Your task to perform on an android device: Open Google Chrome and open the bookmarks view Image 0: 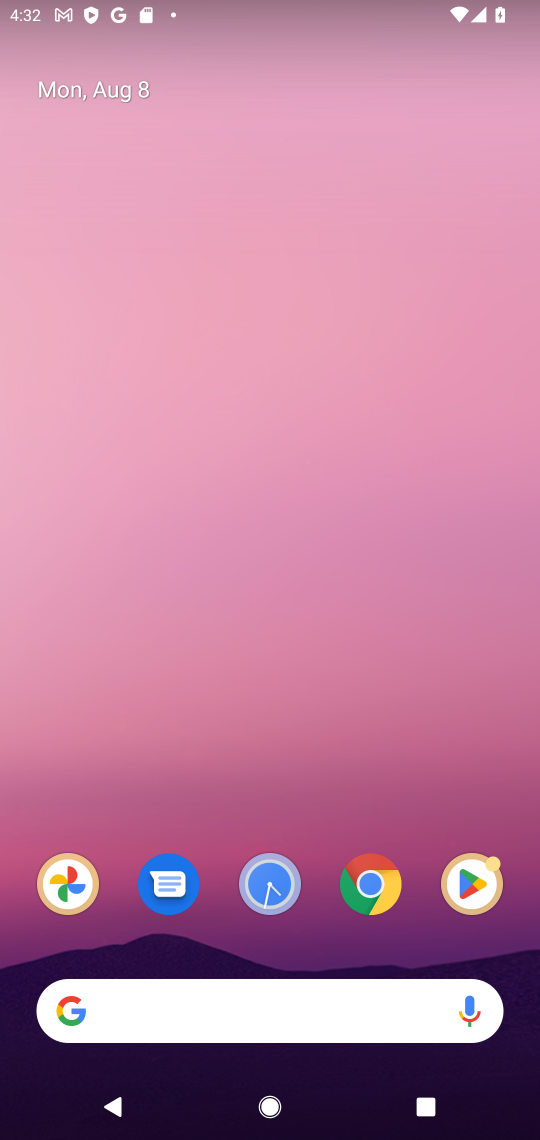
Step 0: click (358, 908)
Your task to perform on an android device: Open Google Chrome and open the bookmarks view Image 1: 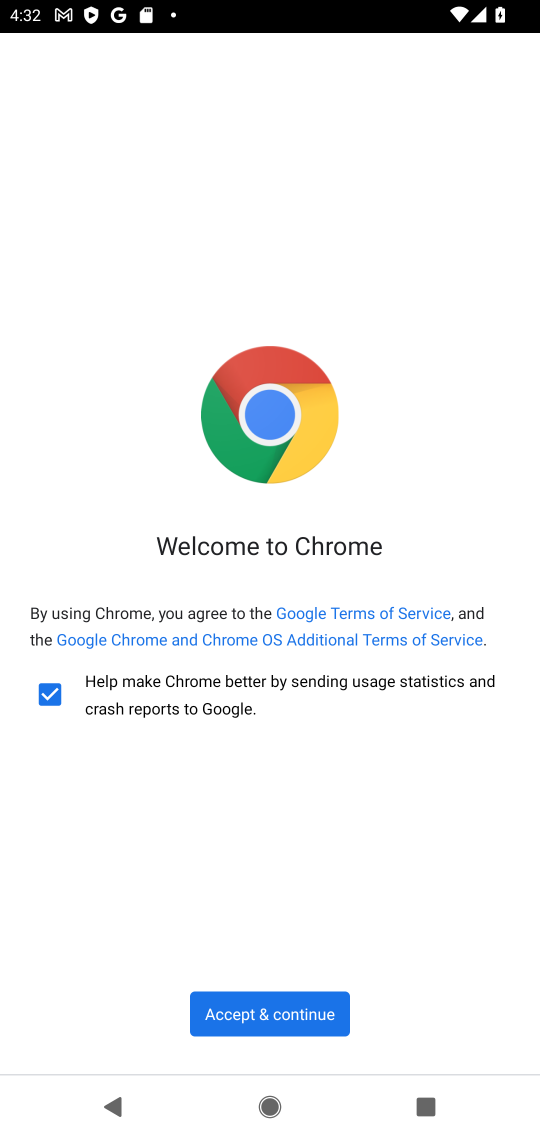
Step 1: click (317, 1008)
Your task to perform on an android device: Open Google Chrome and open the bookmarks view Image 2: 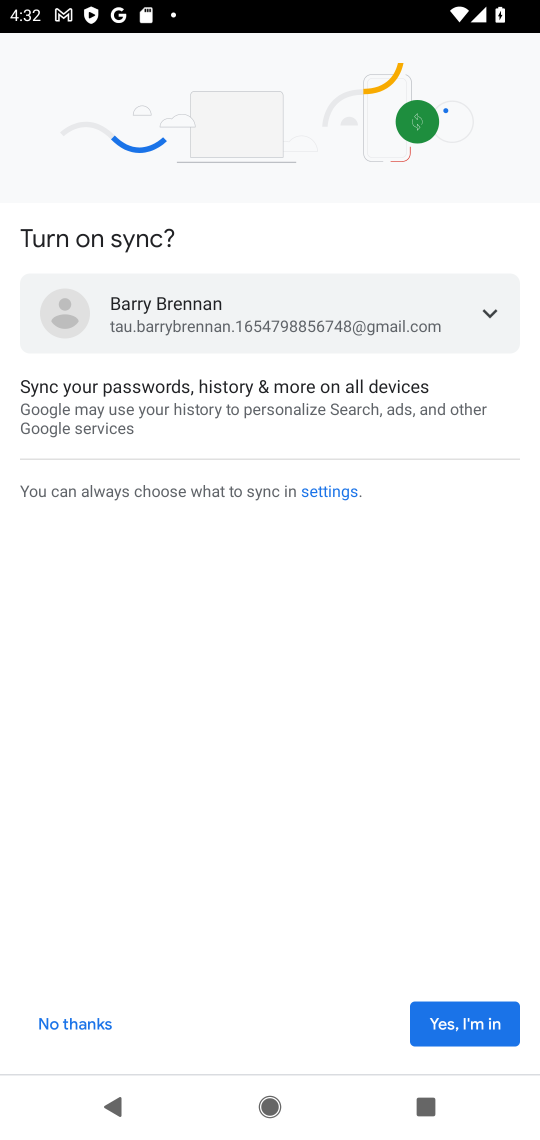
Step 2: click (466, 1025)
Your task to perform on an android device: Open Google Chrome and open the bookmarks view Image 3: 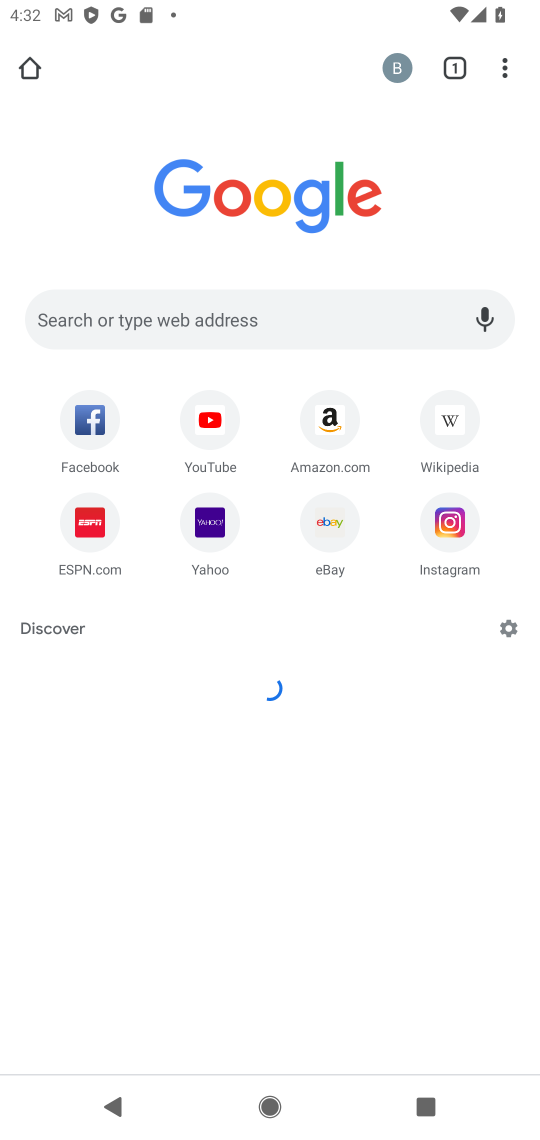
Step 3: drag from (503, 59) to (341, 387)
Your task to perform on an android device: Open Google Chrome and open the bookmarks view Image 4: 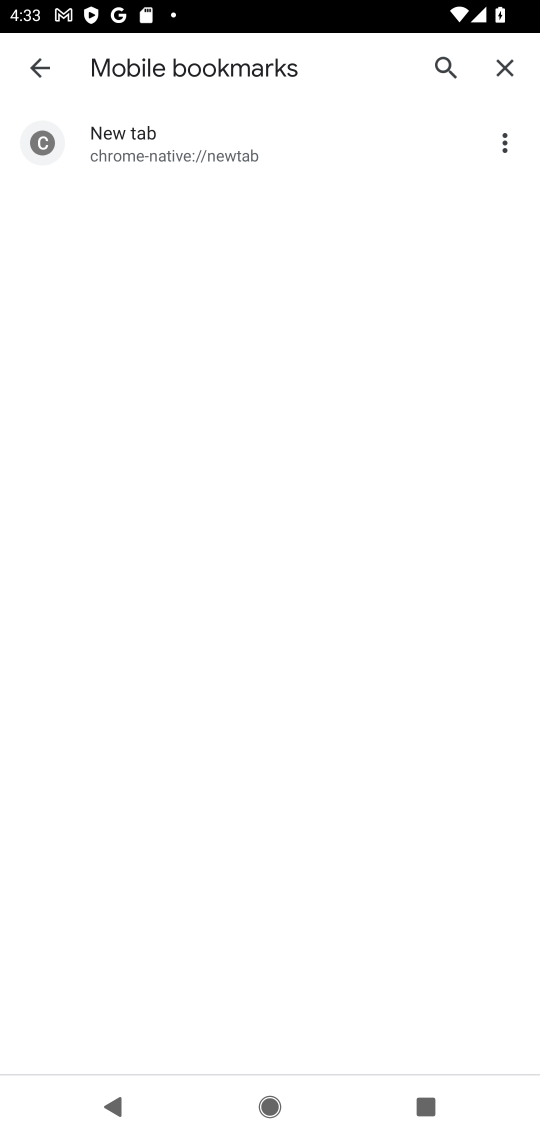
Step 4: click (270, 139)
Your task to perform on an android device: Open Google Chrome and open the bookmarks view Image 5: 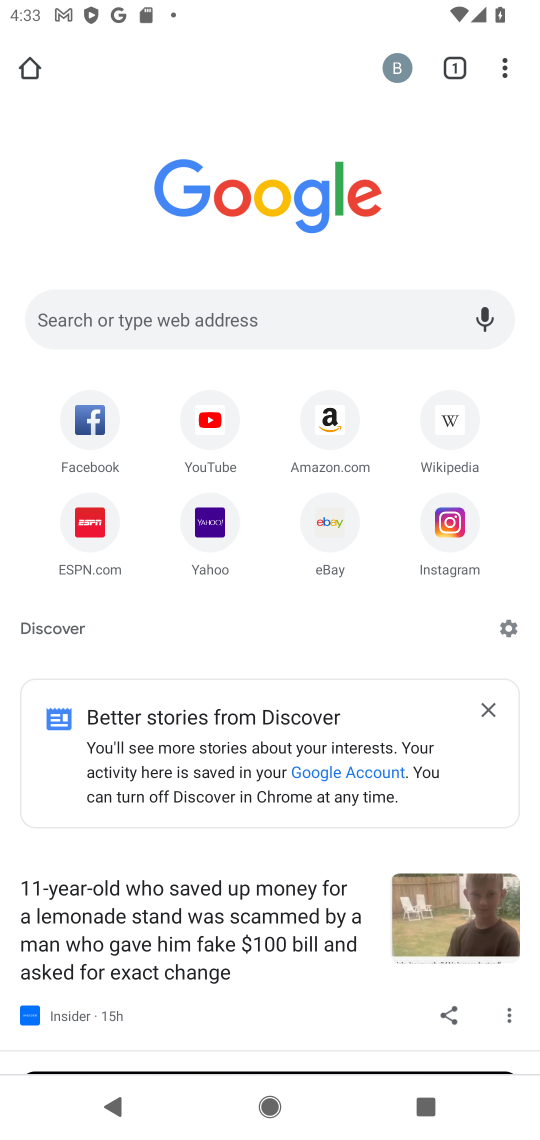
Step 5: task complete